Your task to perform on an android device: change your default location settings in chrome Image 0: 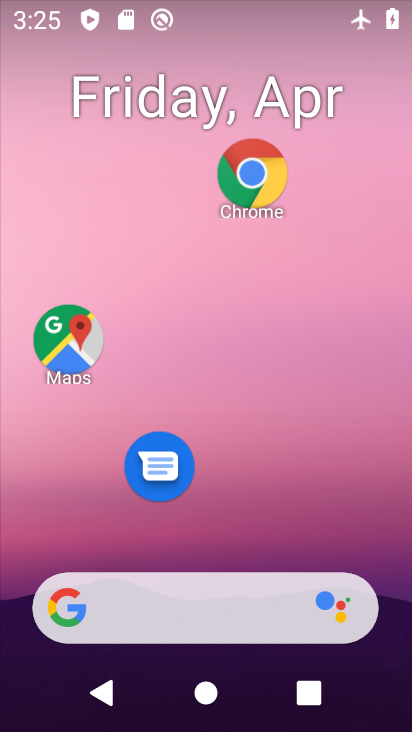
Step 0: click (250, 206)
Your task to perform on an android device: change your default location settings in chrome Image 1: 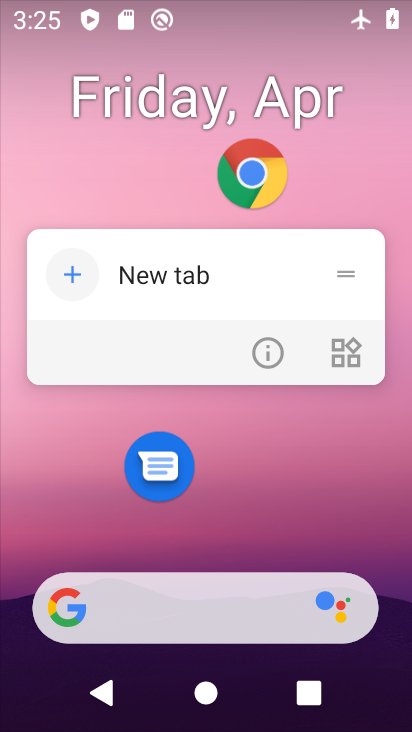
Step 1: click (270, 358)
Your task to perform on an android device: change your default location settings in chrome Image 2: 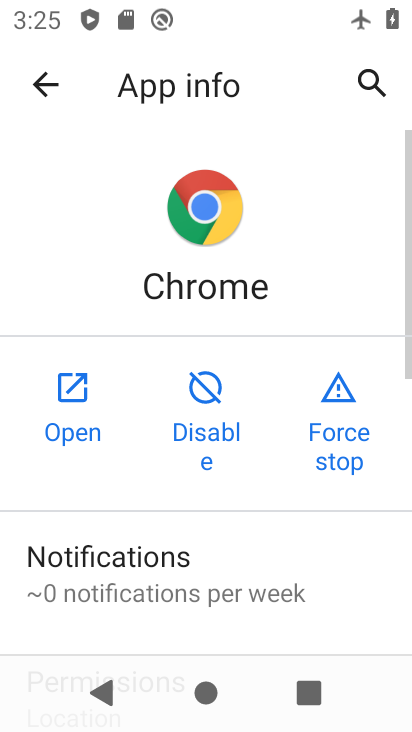
Step 2: click (93, 438)
Your task to perform on an android device: change your default location settings in chrome Image 3: 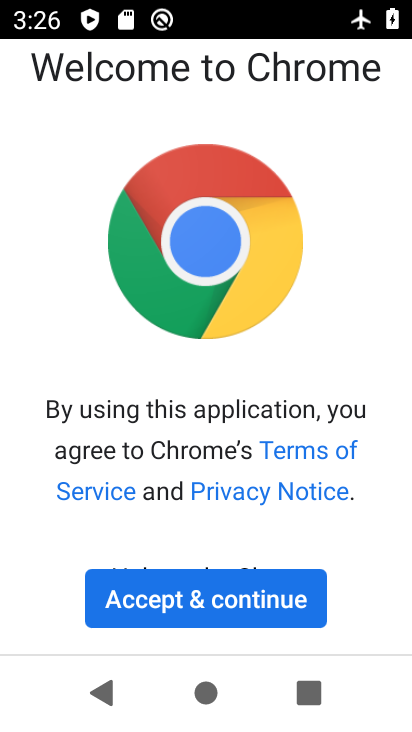
Step 3: click (192, 608)
Your task to perform on an android device: change your default location settings in chrome Image 4: 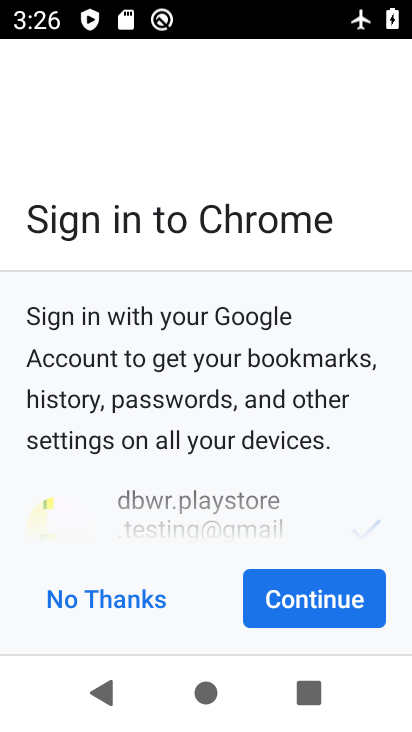
Step 4: click (61, 594)
Your task to perform on an android device: change your default location settings in chrome Image 5: 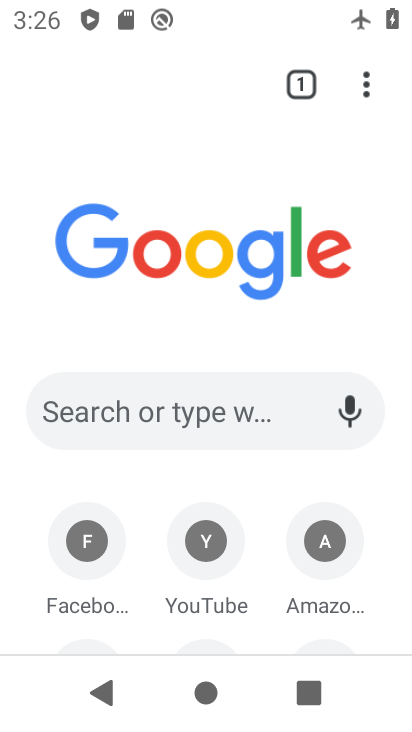
Step 5: click (363, 81)
Your task to perform on an android device: change your default location settings in chrome Image 6: 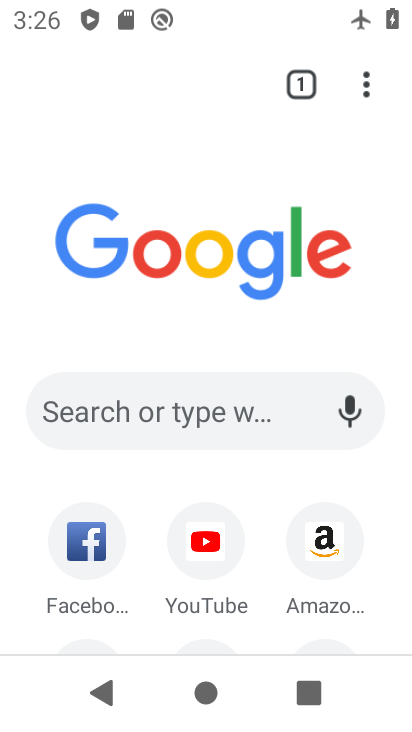
Step 6: click (363, 81)
Your task to perform on an android device: change your default location settings in chrome Image 7: 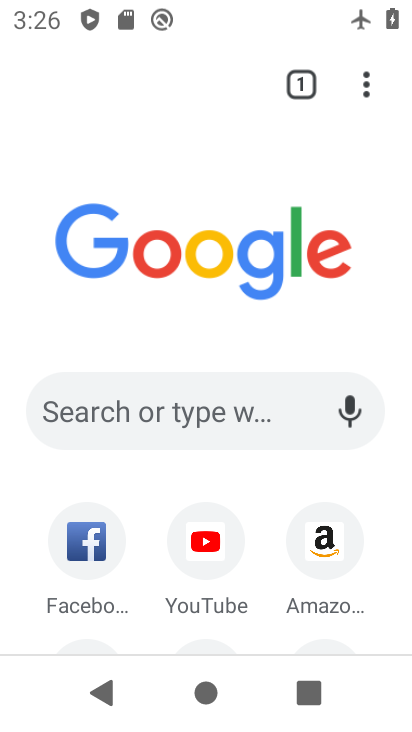
Step 7: click (363, 81)
Your task to perform on an android device: change your default location settings in chrome Image 8: 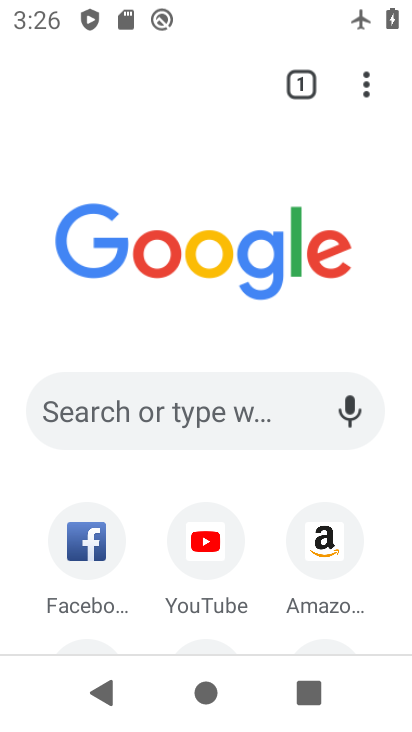
Step 8: click (363, 81)
Your task to perform on an android device: change your default location settings in chrome Image 9: 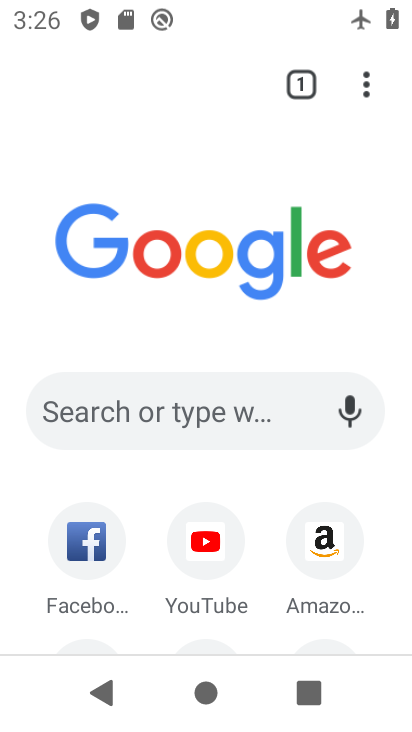
Step 9: click (363, 81)
Your task to perform on an android device: change your default location settings in chrome Image 10: 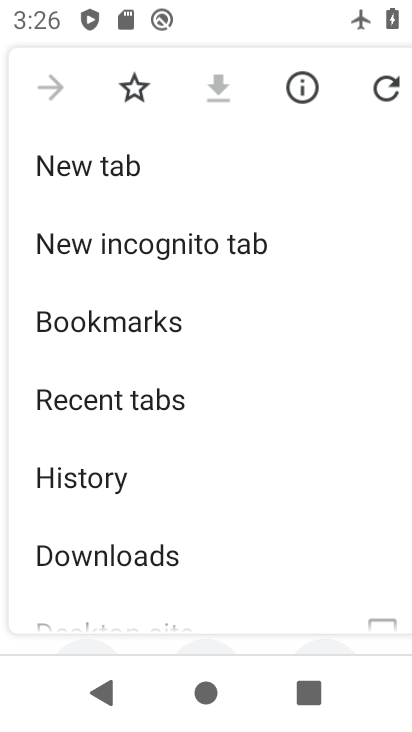
Step 10: click (363, 81)
Your task to perform on an android device: change your default location settings in chrome Image 11: 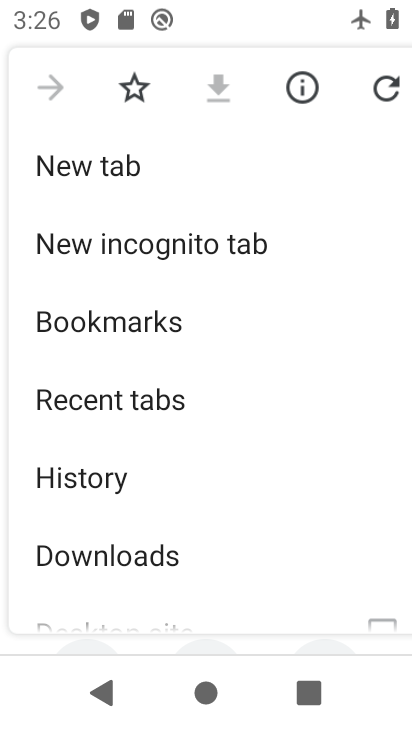
Step 11: drag from (148, 554) to (240, 234)
Your task to perform on an android device: change your default location settings in chrome Image 12: 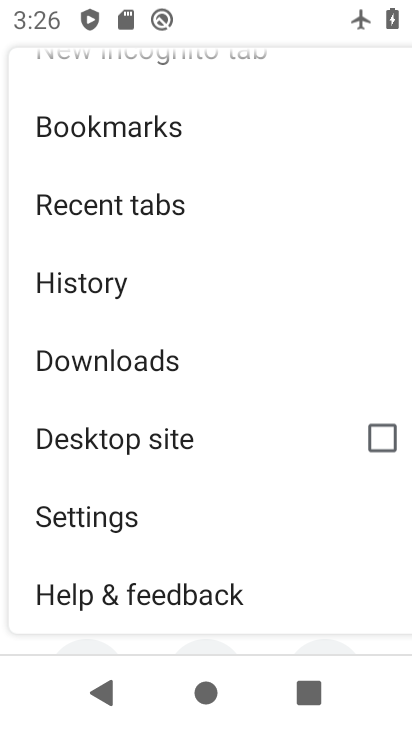
Step 12: click (70, 521)
Your task to perform on an android device: change your default location settings in chrome Image 13: 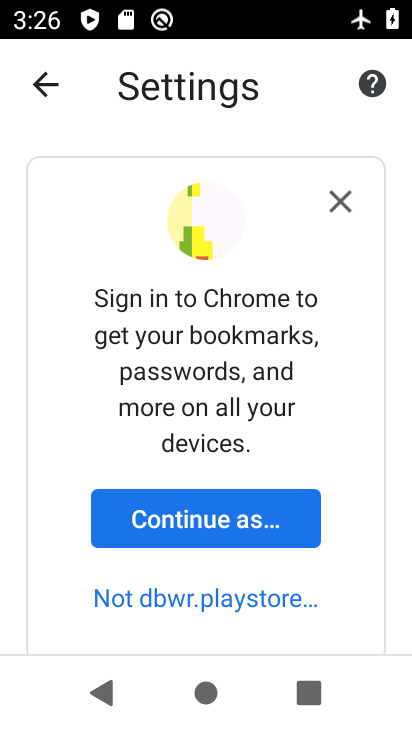
Step 13: click (332, 200)
Your task to perform on an android device: change your default location settings in chrome Image 14: 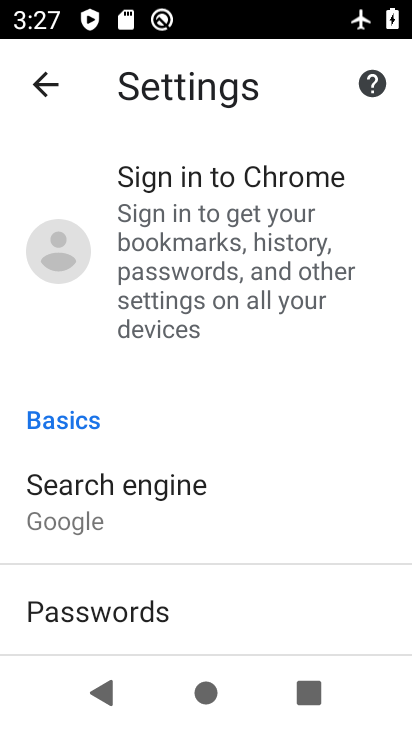
Step 14: drag from (124, 625) to (258, 277)
Your task to perform on an android device: change your default location settings in chrome Image 15: 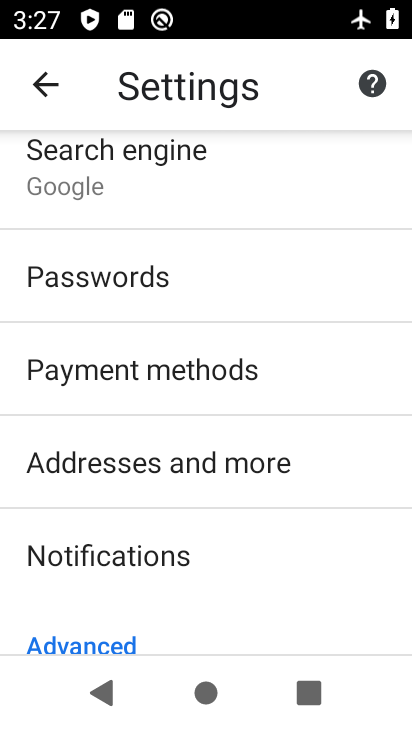
Step 15: drag from (142, 544) to (280, 229)
Your task to perform on an android device: change your default location settings in chrome Image 16: 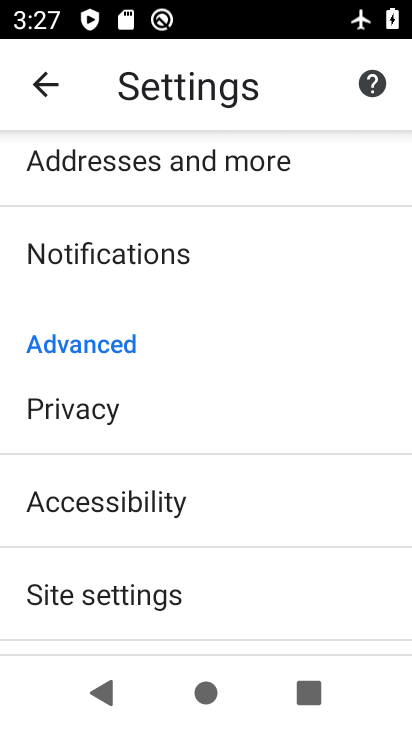
Step 16: click (126, 592)
Your task to perform on an android device: change your default location settings in chrome Image 17: 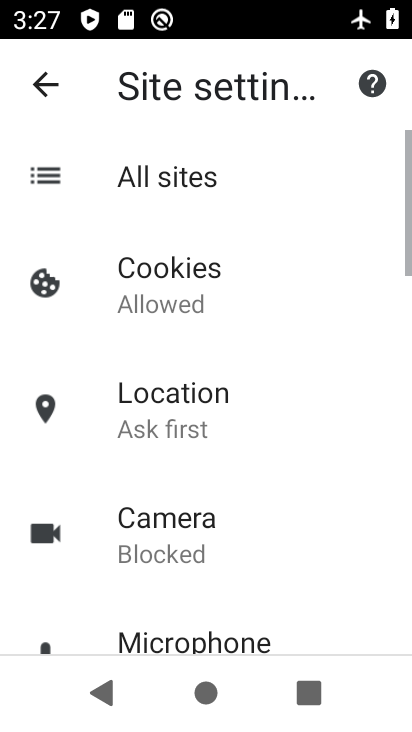
Step 17: click (189, 381)
Your task to perform on an android device: change your default location settings in chrome Image 18: 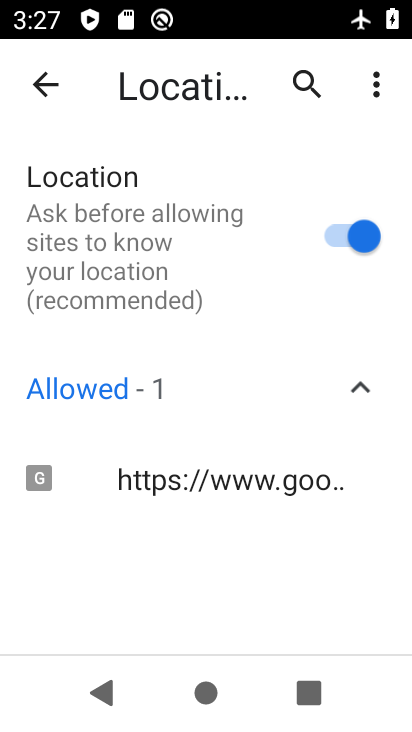
Step 18: click (372, 241)
Your task to perform on an android device: change your default location settings in chrome Image 19: 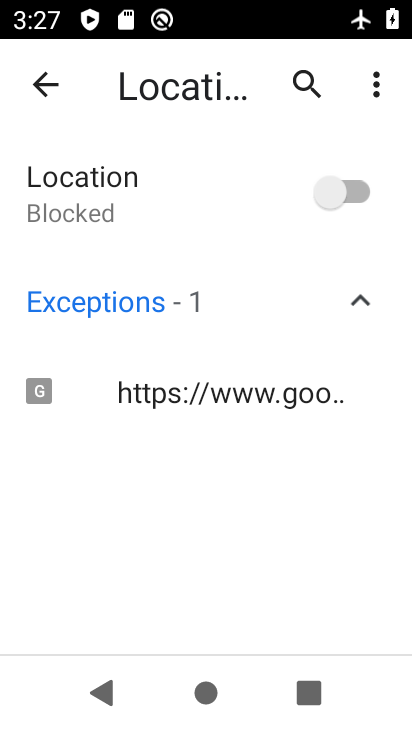
Step 19: task complete